Your task to perform on an android device: Open CNN.com Image 0: 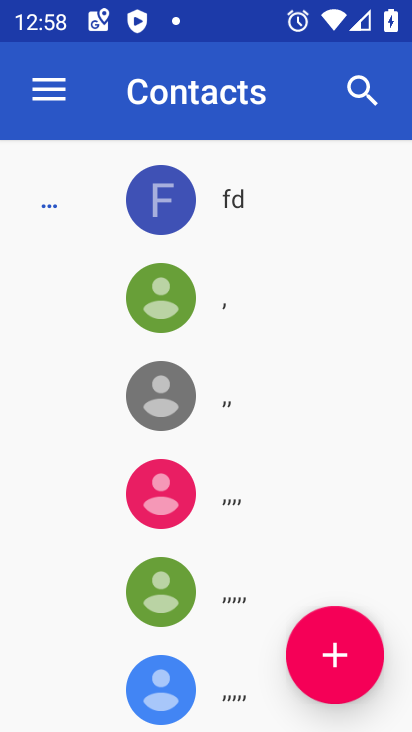
Step 0: press home button
Your task to perform on an android device: Open CNN.com Image 1: 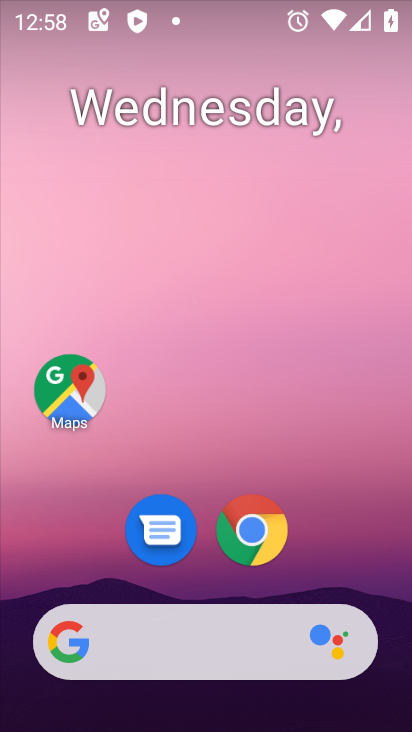
Step 1: click (248, 532)
Your task to perform on an android device: Open CNN.com Image 2: 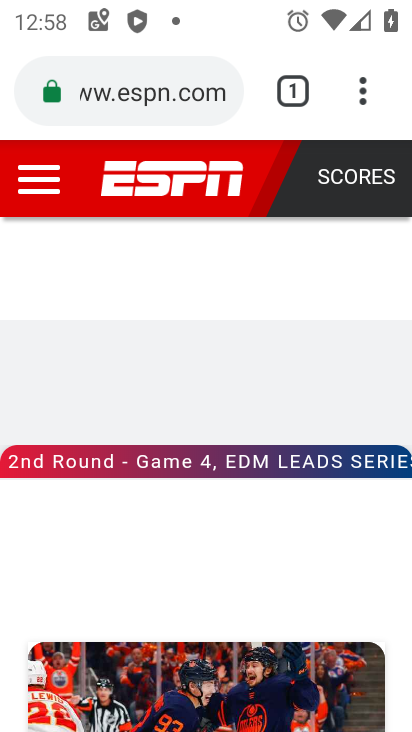
Step 2: click (100, 95)
Your task to perform on an android device: Open CNN.com Image 3: 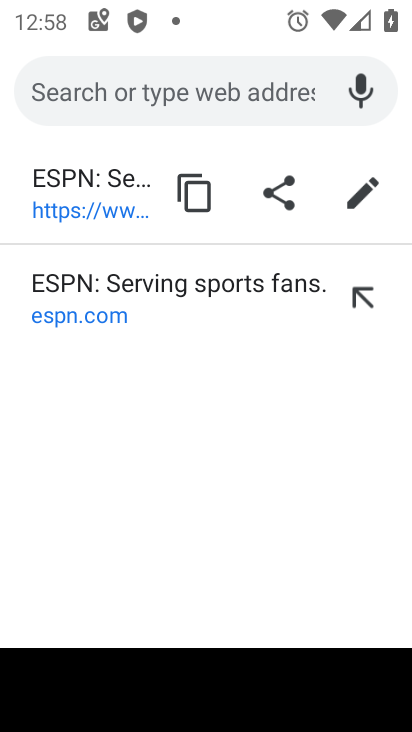
Step 3: type "CNN.com"
Your task to perform on an android device: Open CNN.com Image 4: 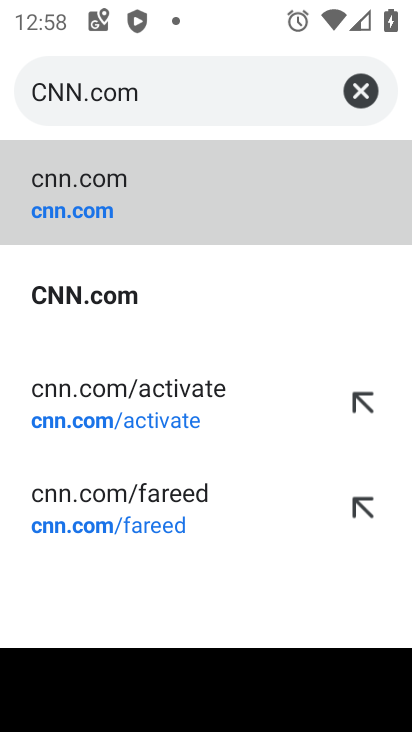
Step 4: click (43, 282)
Your task to perform on an android device: Open CNN.com Image 5: 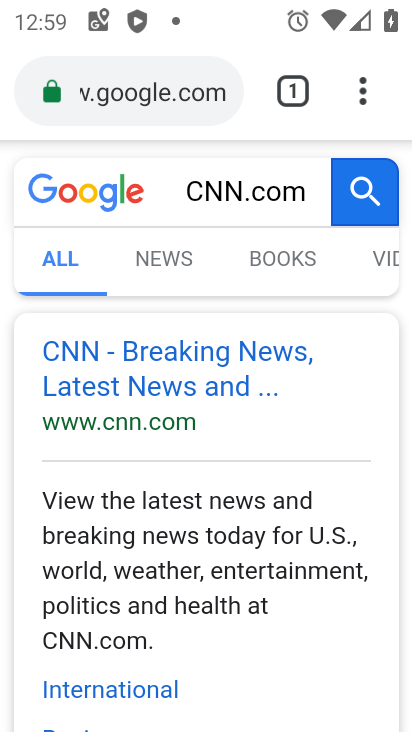
Step 5: task complete